Your task to perform on an android device: open chrome privacy settings Image 0: 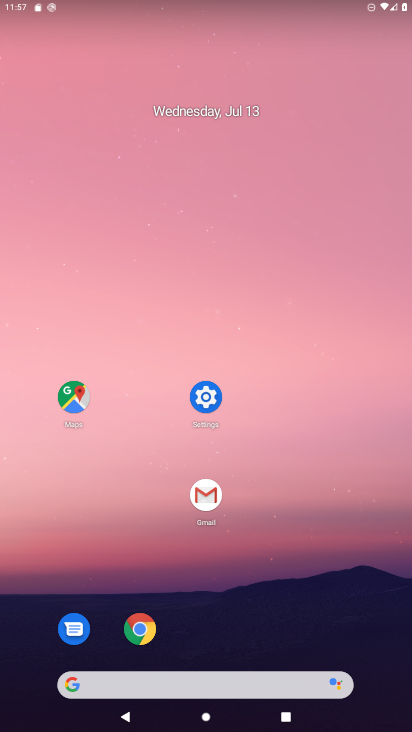
Step 0: click (144, 619)
Your task to perform on an android device: open chrome privacy settings Image 1: 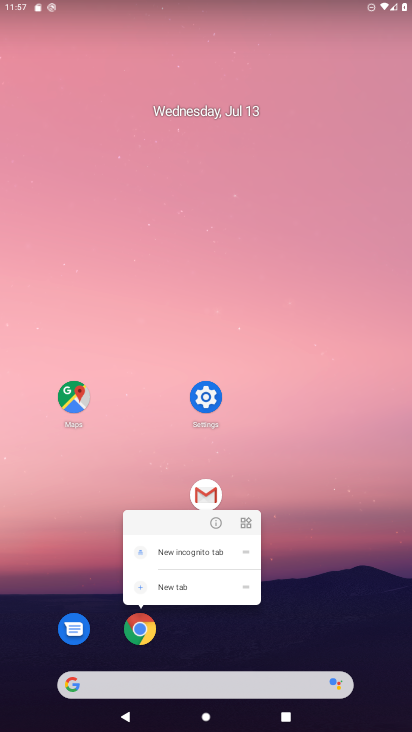
Step 1: click (147, 627)
Your task to perform on an android device: open chrome privacy settings Image 2: 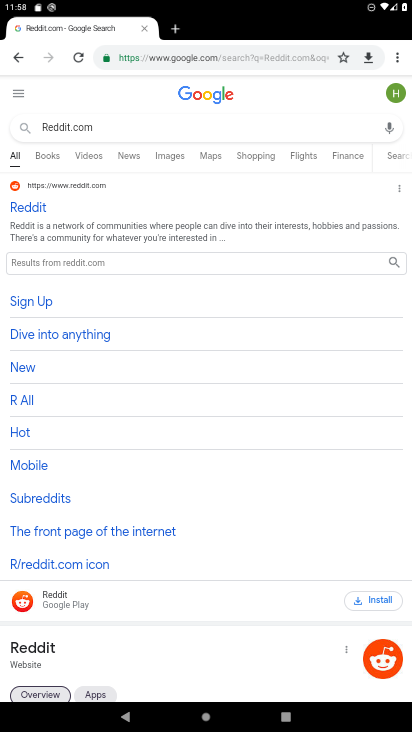
Step 2: click (398, 56)
Your task to perform on an android device: open chrome privacy settings Image 3: 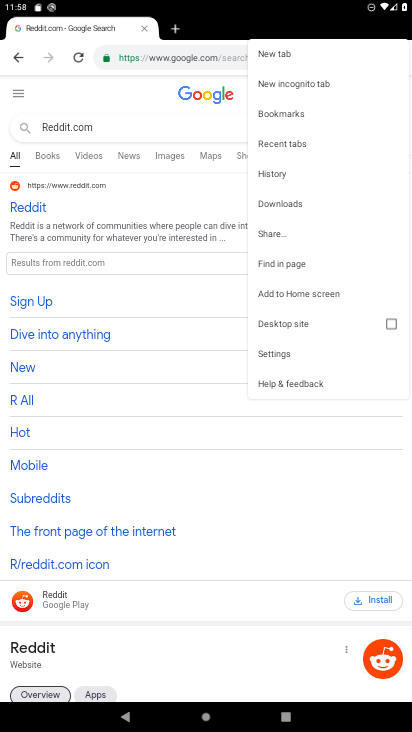
Step 3: click (268, 349)
Your task to perform on an android device: open chrome privacy settings Image 4: 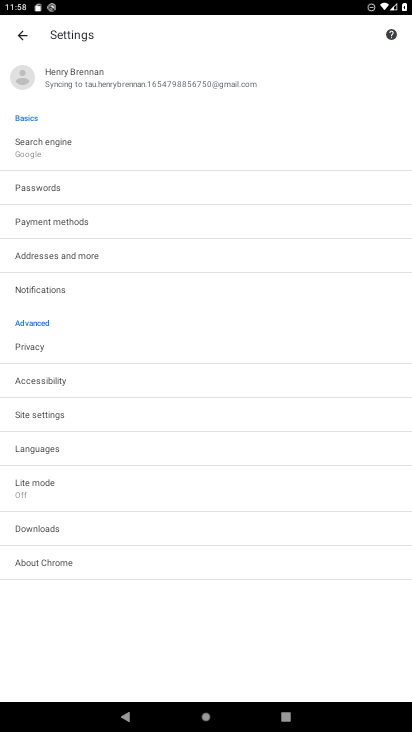
Step 4: click (44, 344)
Your task to perform on an android device: open chrome privacy settings Image 5: 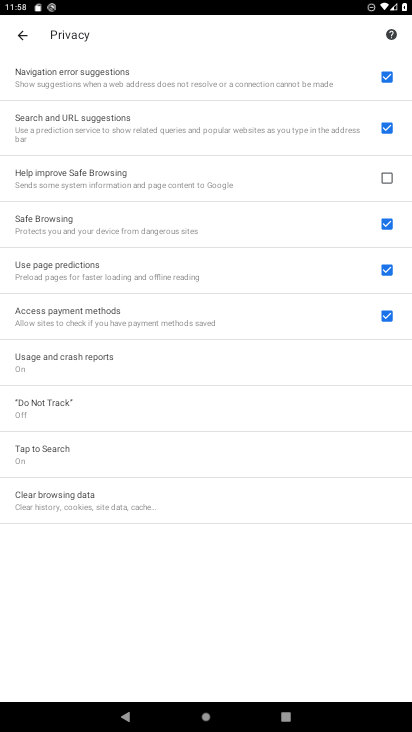
Step 5: task complete